Your task to perform on an android device: Open Youtube and go to the subscriptions tab Image 0: 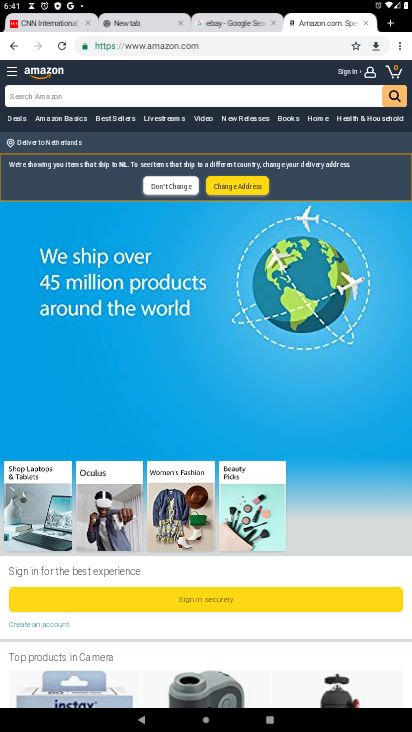
Step 0: press home button
Your task to perform on an android device: Open Youtube and go to the subscriptions tab Image 1: 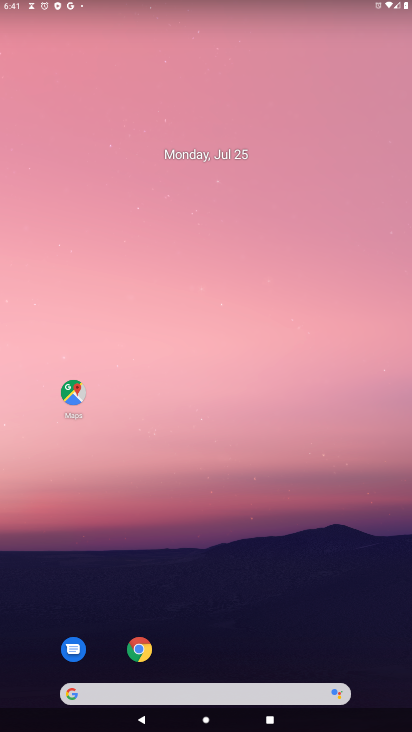
Step 1: drag from (166, 683) to (264, 43)
Your task to perform on an android device: Open Youtube and go to the subscriptions tab Image 2: 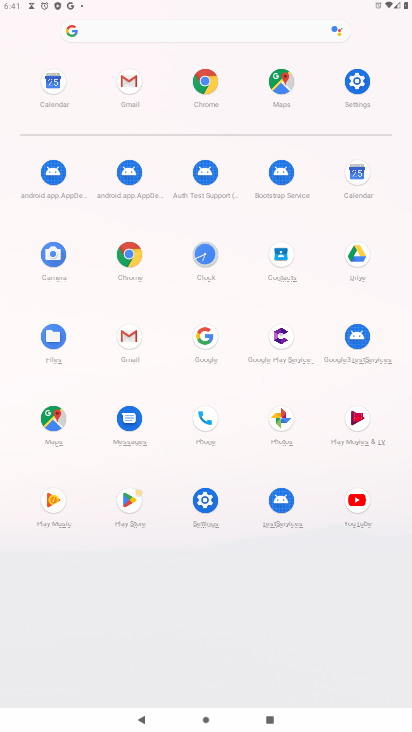
Step 2: click (359, 490)
Your task to perform on an android device: Open Youtube and go to the subscriptions tab Image 3: 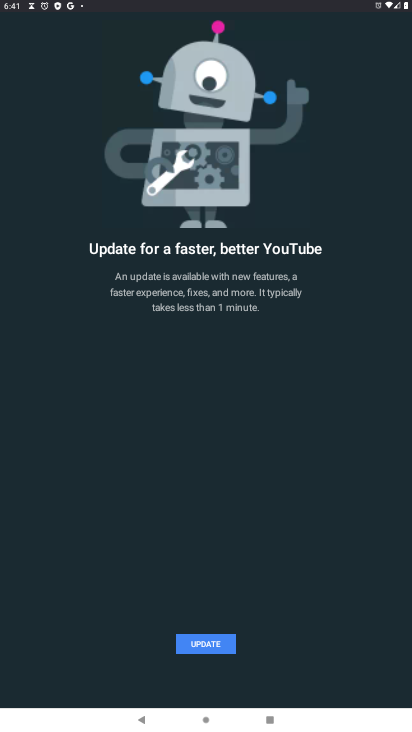
Step 3: click (217, 648)
Your task to perform on an android device: Open Youtube and go to the subscriptions tab Image 4: 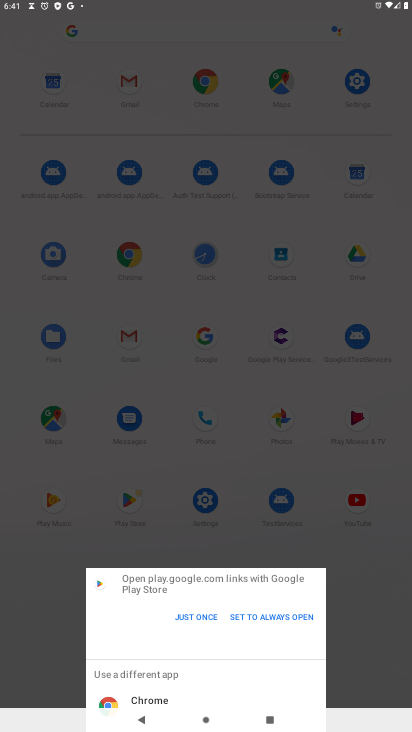
Step 4: click (199, 619)
Your task to perform on an android device: Open Youtube and go to the subscriptions tab Image 5: 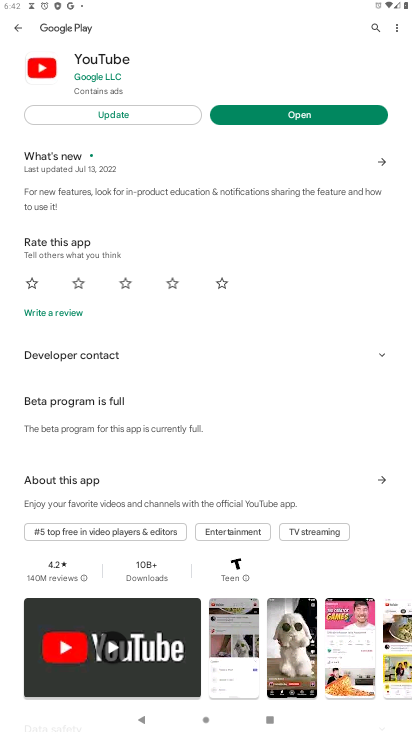
Step 5: click (155, 112)
Your task to perform on an android device: Open Youtube and go to the subscriptions tab Image 6: 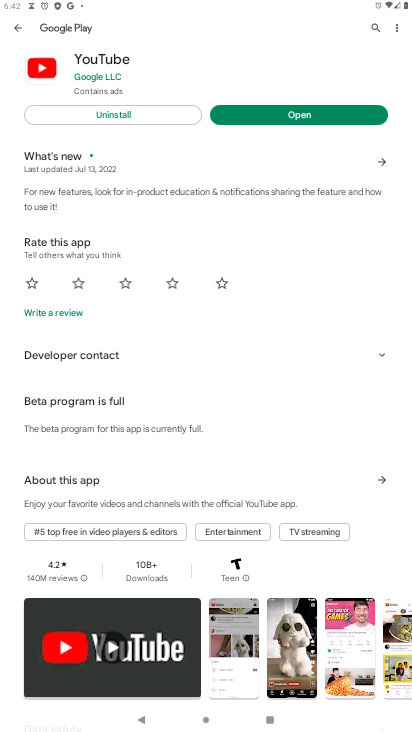
Step 6: click (309, 113)
Your task to perform on an android device: Open Youtube and go to the subscriptions tab Image 7: 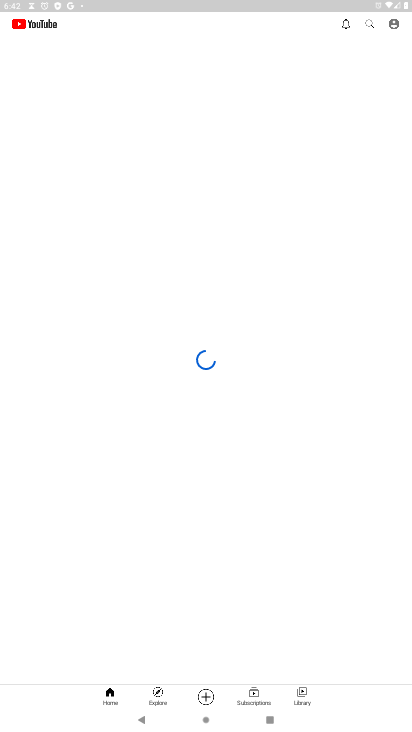
Step 7: click (225, 695)
Your task to perform on an android device: Open Youtube and go to the subscriptions tab Image 8: 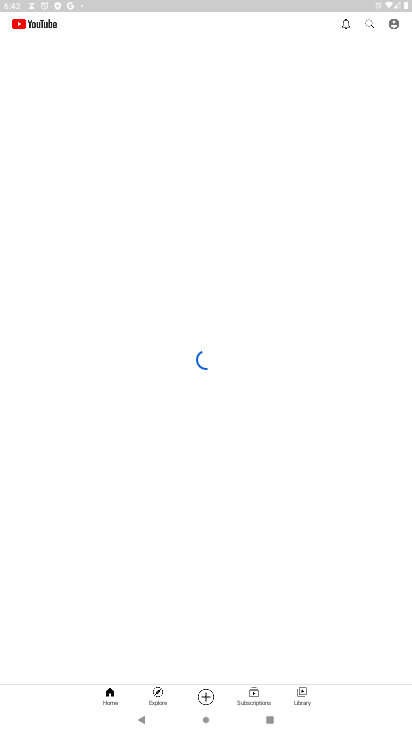
Step 8: click (253, 689)
Your task to perform on an android device: Open Youtube and go to the subscriptions tab Image 9: 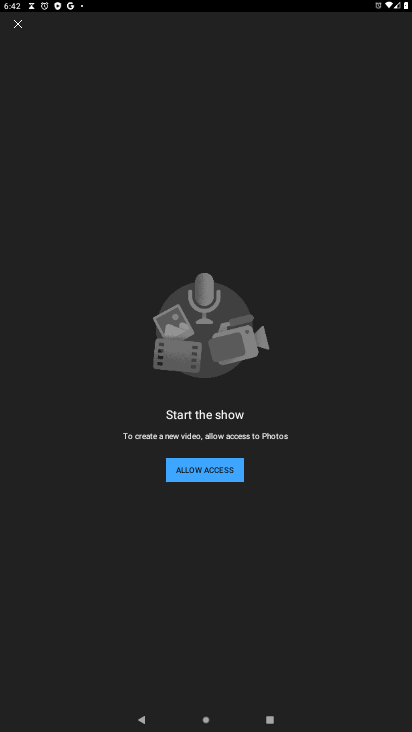
Step 9: press back button
Your task to perform on an android device: Open Youtube and go to the subscriptions tab Image 10: 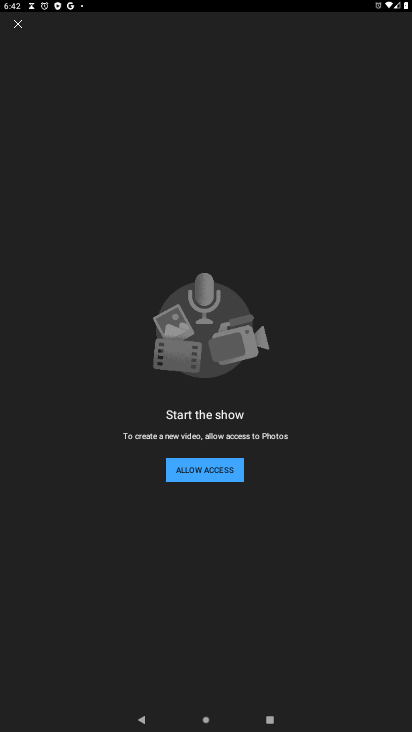
Step 10: press back button
Your task to perform on an android device: Open Youtube and go to the subscriptions tab Image 11: 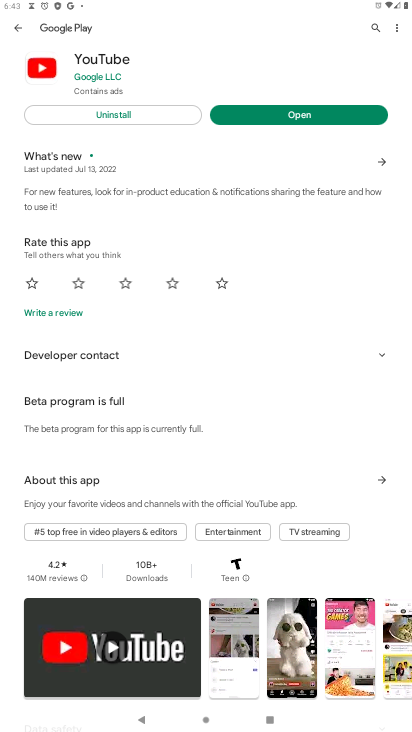
Step 11: click (358, 112)
Your task to perform on an android device: Open Youtube and go to the subscriptions tab Image 12: 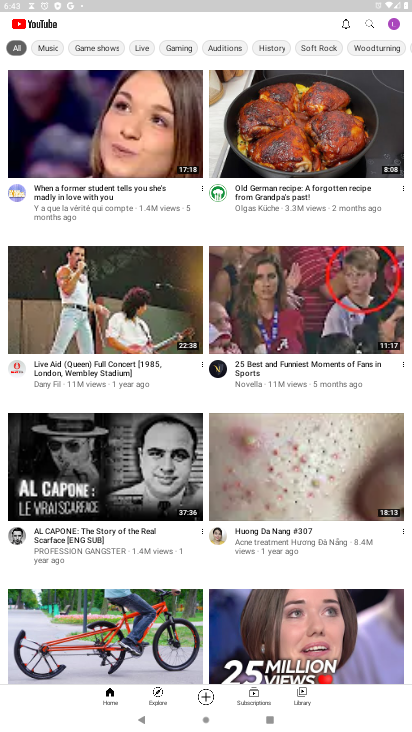
Step 12: click (256, 693)
Your task to perform on an android device: Open Youtube and go to the subscriptions tab Image 13: 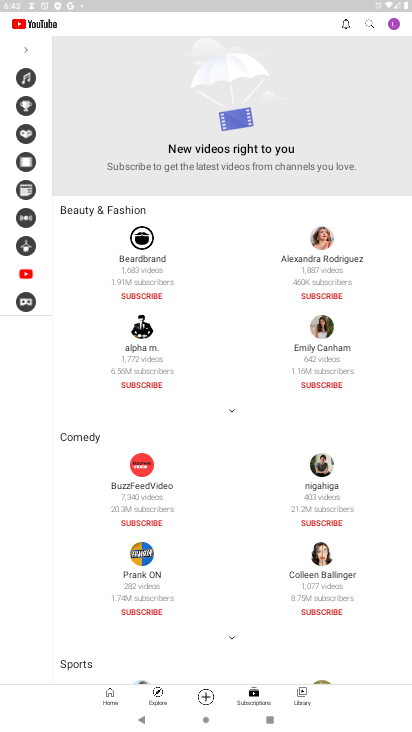
Step 13: task complete